Your task to perform on an android device: turn vacation reply on in the gmail app Image 0: 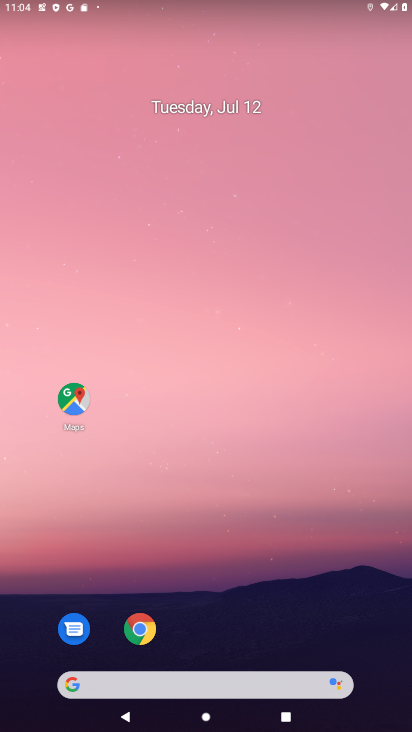
Step 0: drag from (323, 599) to (293, 168)
Your task to perform on an android device: turn vacation reply on in the gmail app Image 1: 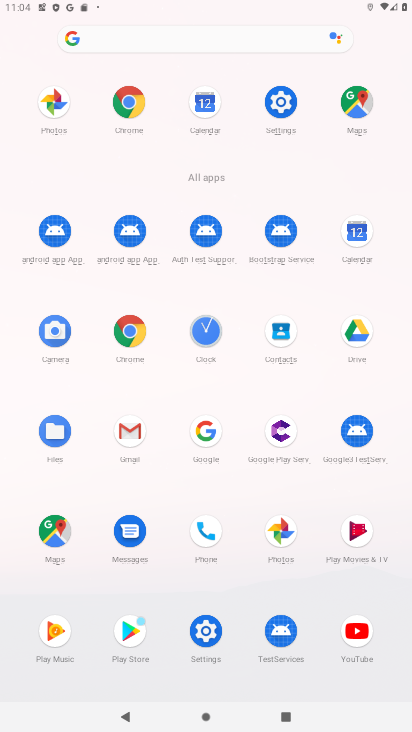
Step 1: click (127, 428)
Your task to perform on an android device: turn vacation reply on in the gmail app Image 2: 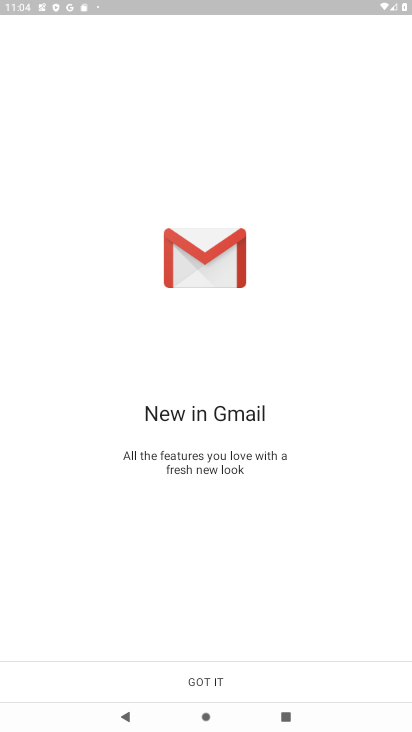
Step 2: click (219, 665)
Your task to perform on an android device: turn vacation reply on in the gmail app Image 3: 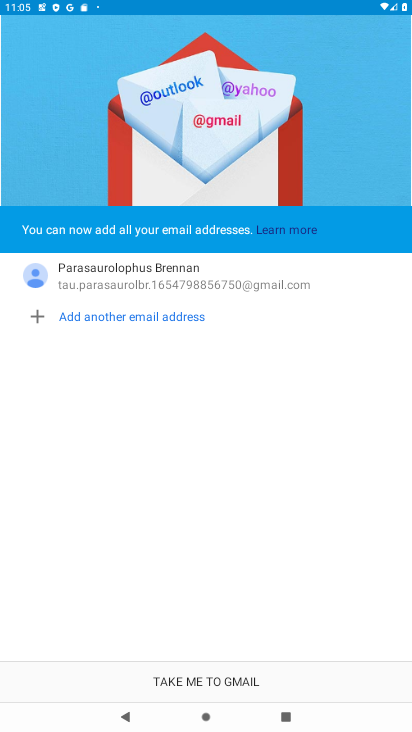
Step 3: click (219, 667)
Your task to perform on an android device: turn vacation reply on in the gmail app Image 4: 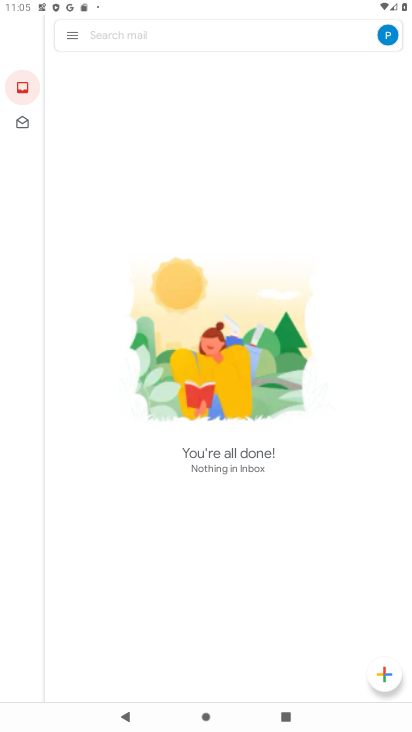
Step 4: click (62, 29)
Your task to perform on an android device: turn vacation reply on in the gmail app Image 5: 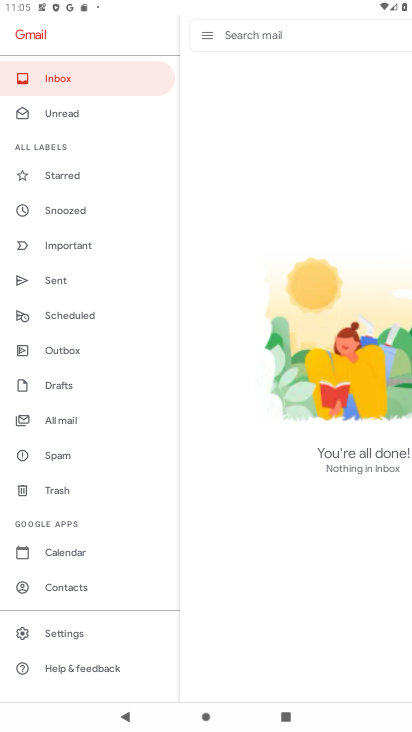
Step 5: click (78, 626)
Your task to perform on an android device: turn vacation reply on in the gmail app Image 6: 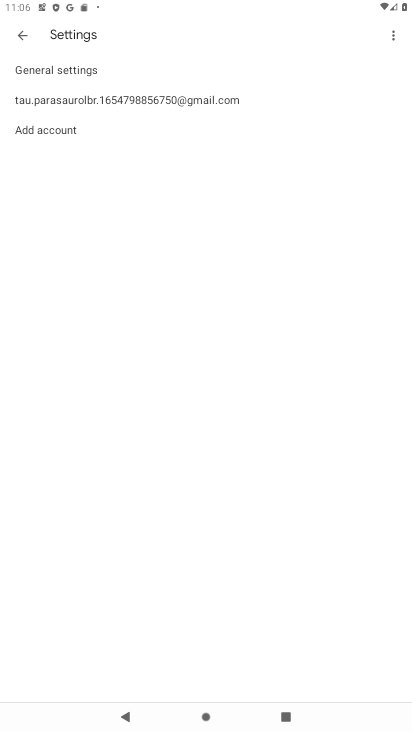
Step 6: click (100, 54)
Your task to perform on an android device: turn vacation reply on in the gmail app Image 7: 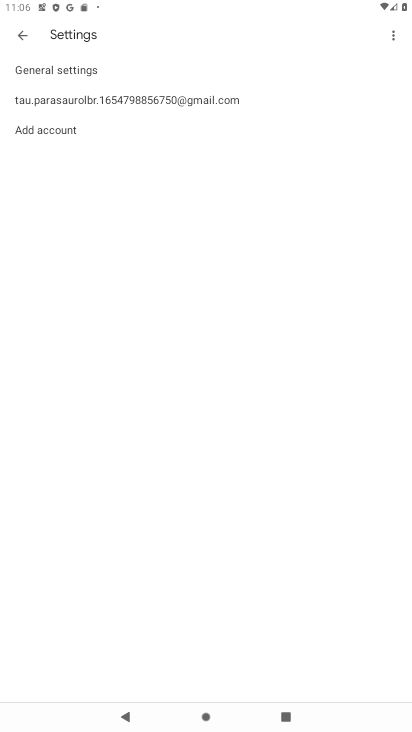
Step 7: click (67, 55)
Your task to perform on an android device: turn vacation reply on in the gmail app Image 8: 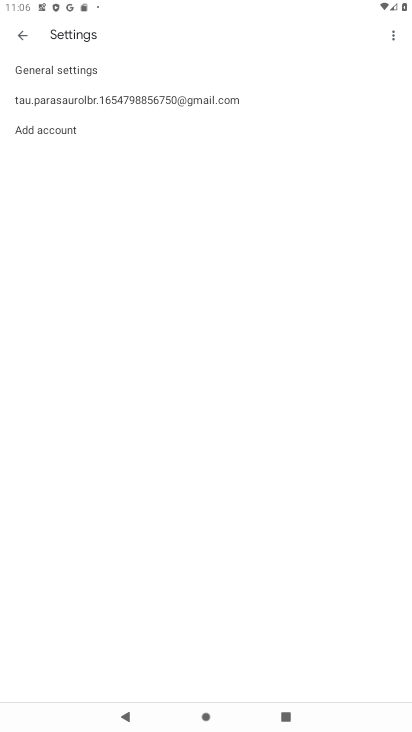
Step 8: click (84, 69)
Your task to perform on an android device: turn vacation reply on in the gmail app Image 9: 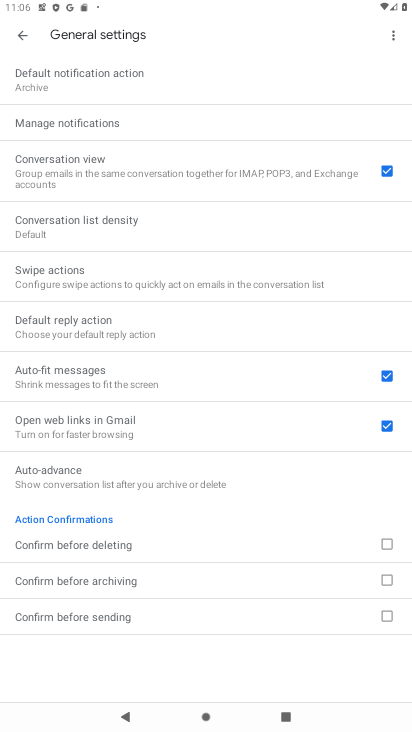
Step 9: click (25, 36)
Your task to perform on an android device: turn vacation reply on in the gmail app Image 10: 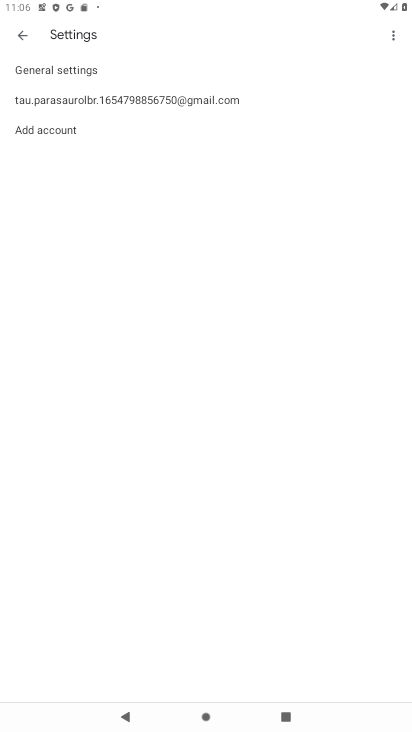
Step 10: click (104, 97)
Your task to perform on an android device: turn vacation reply on in the gmail app Image 11: 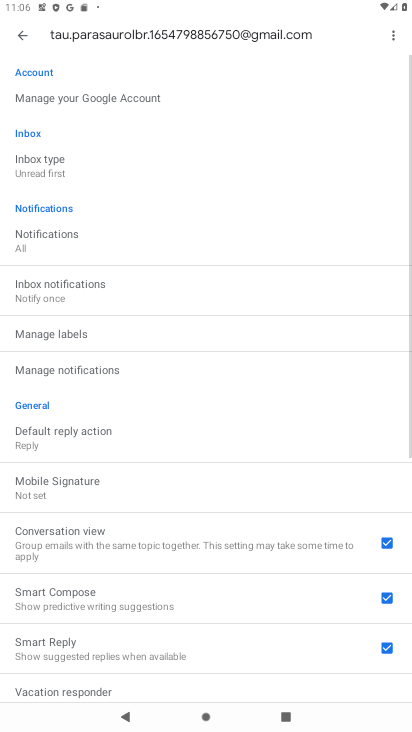
Step 11: drag from (158, 560) to (209, 156)
Your task to perform on an android device: turn vacation reply on in the gmail app Image 12: 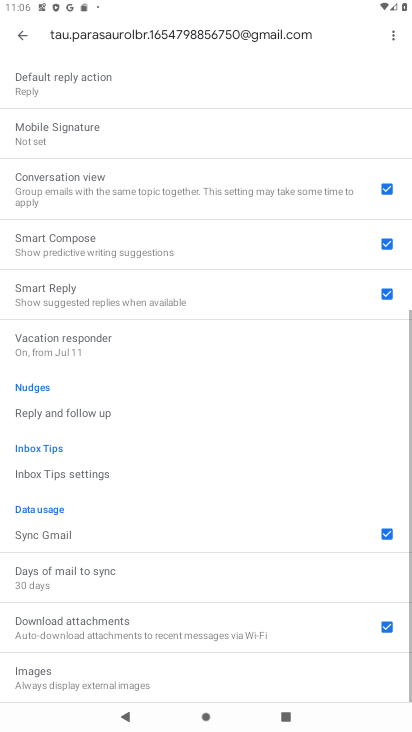
Step 12: click (165, 338)
Your task to perform on an android device: turn vacation reply on in the gmail app Image 13: 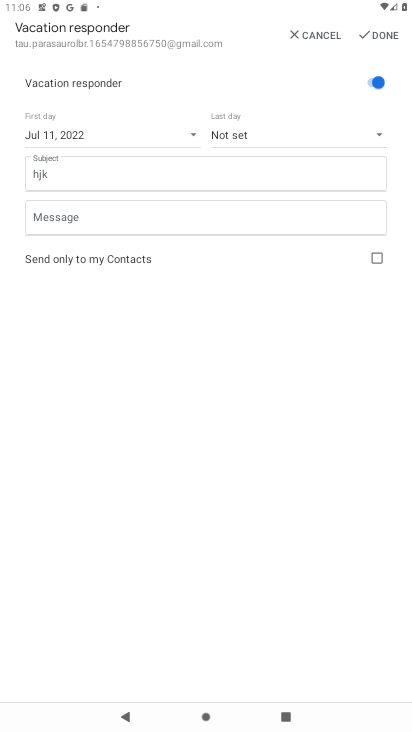
Step 13: task complete